Your task to perform on an android device: Search for vegetarian restaurants on Maps Image 0: 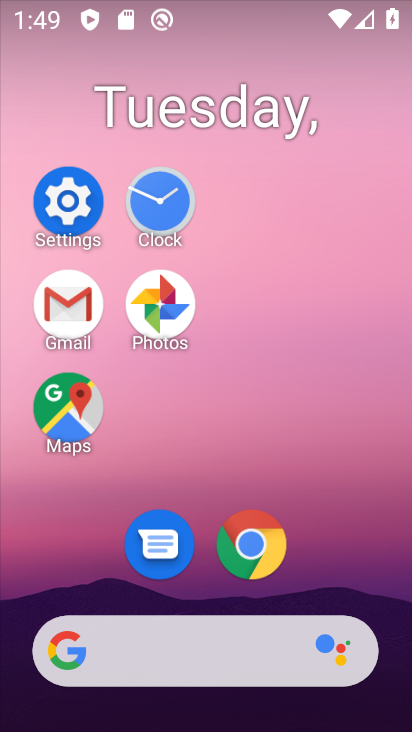
Step 0: click (266, 527)
Your task to perform on an android device: Search for vegetarian restaurants on Maps Image 1: 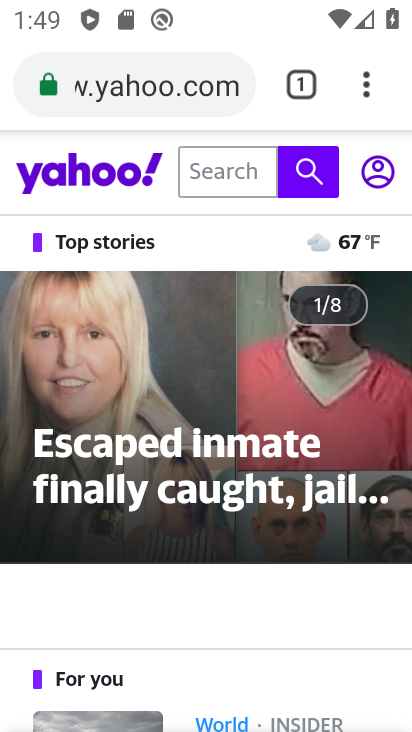
Step 1: click (372, 76)
Your task to perform on an android device: Search for vegetarian restaurants on Maps Image 2: 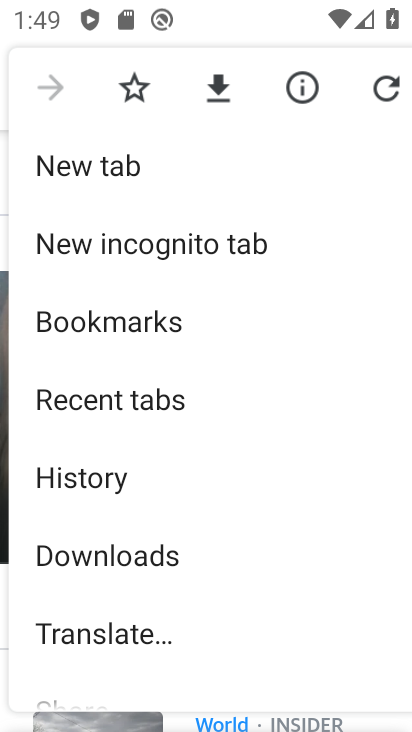
Step 2: click (99, 473)
Your task to perform on an android device: Search for vegetarian restaurants on Maps Image 3: 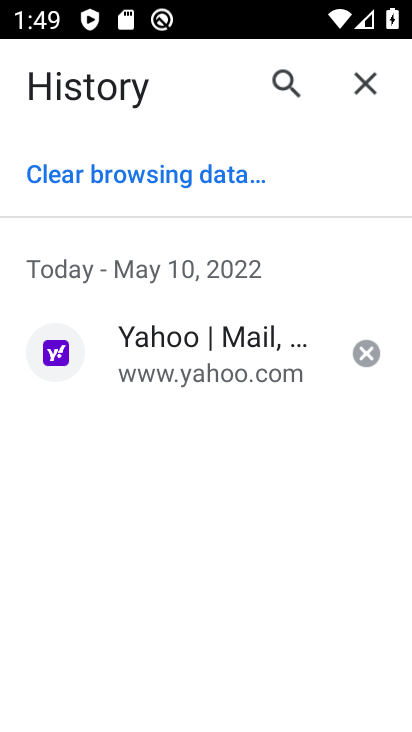
Step 3: task complete